Your task to perform on an android device: Go to display settings Image 0: 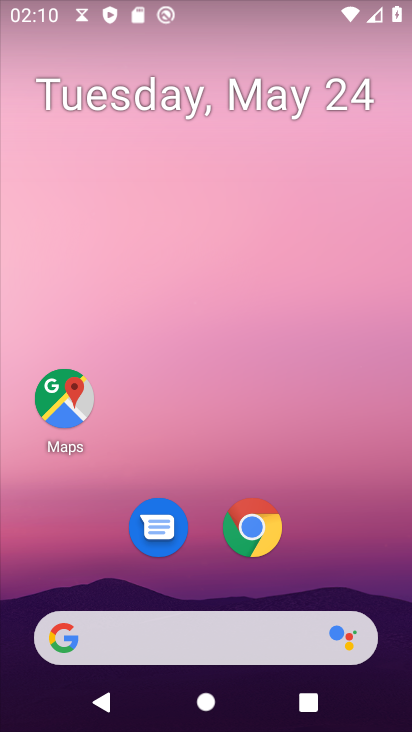
Step 0: drag from (142, 649) to (319, 4)
Your task to perform on an android device: Go to display settings Image 1: 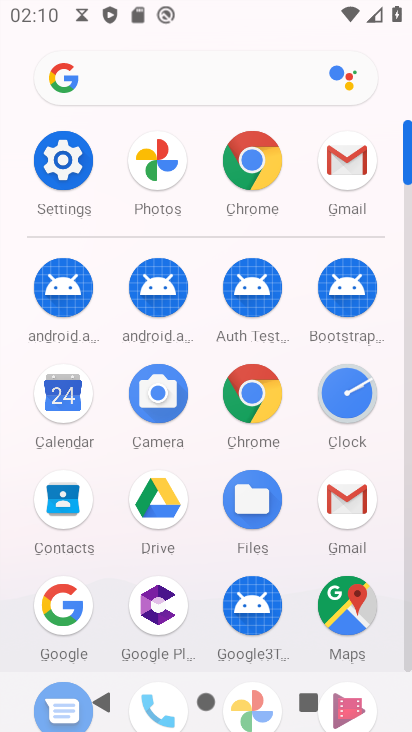
Step 1: click (75, 169)
Your task to perform on an android device: Go to display settings Image 2: 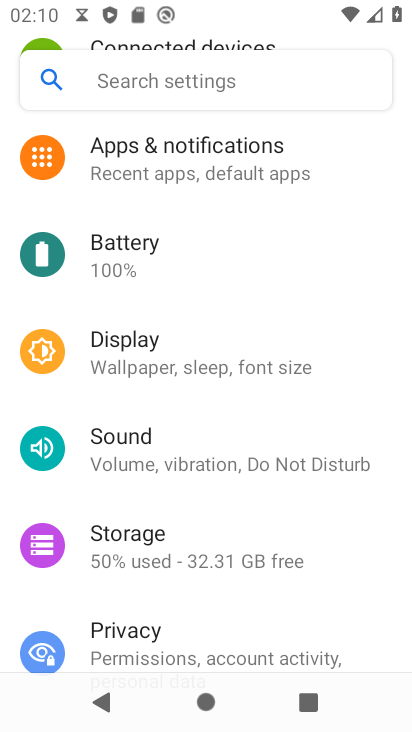
Step 2: click (123, 347)
Your task to perform on an android device: Go to display settings Image 3: 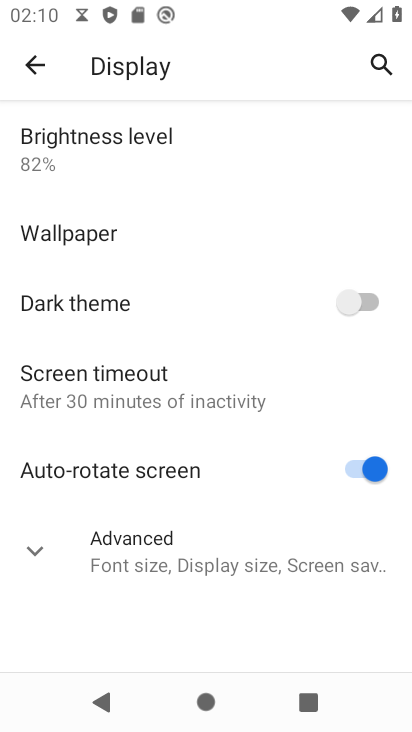
Step 3: task complete